Your task to perform on an android device: Toggle the flashlight Image 0: 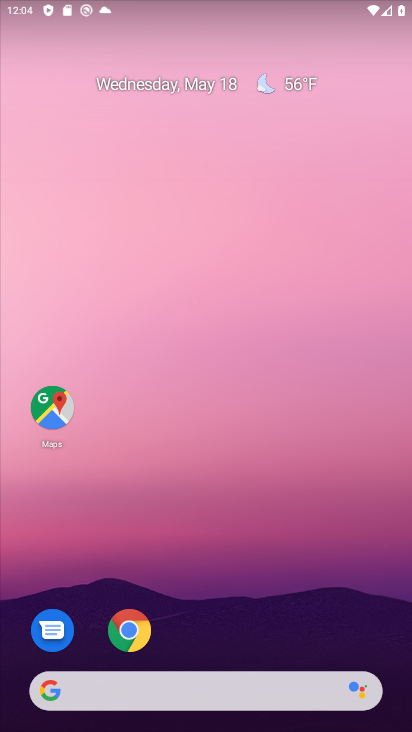
Step 0: drag from (216, 568) to (203, 382)
Your task to perform on an android device: Toggle the flashlight Image 1: 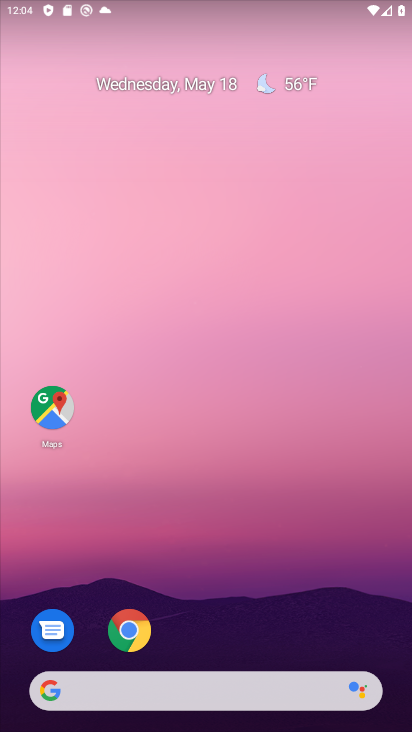
Step 1: drag from (233, 607) to (231, 10)
Your task to perform on an android device: Toggle the flashlight Image 2: 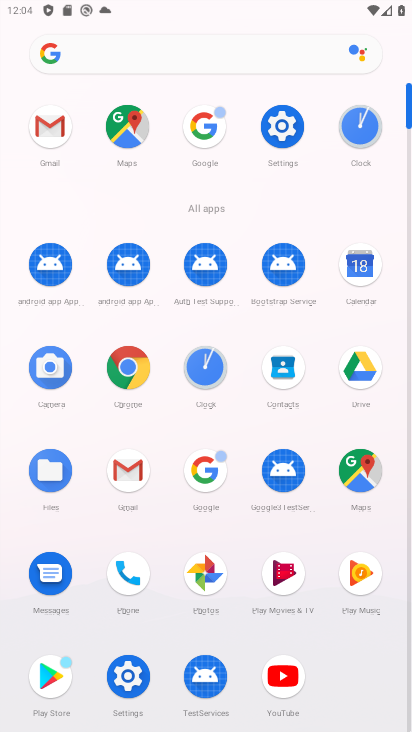
Step 2: click (285, 127)
Your task to perform on an android device: Toggle the flashlight Image 3: 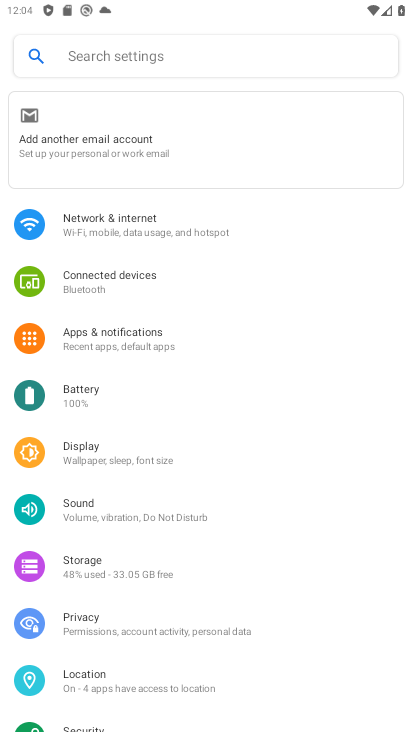
Step 3: drag from (220, 477) to (228, 68)
Your task to perform on an android device: Toggle the flashlight Image 4: 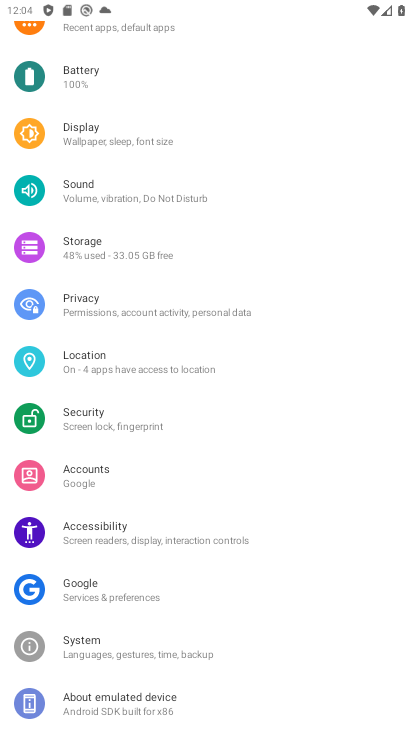
Step 4: drag from (189, 448) to (188, 48)
Your task to perform on an android device: Toggle the flashlight Image 5: 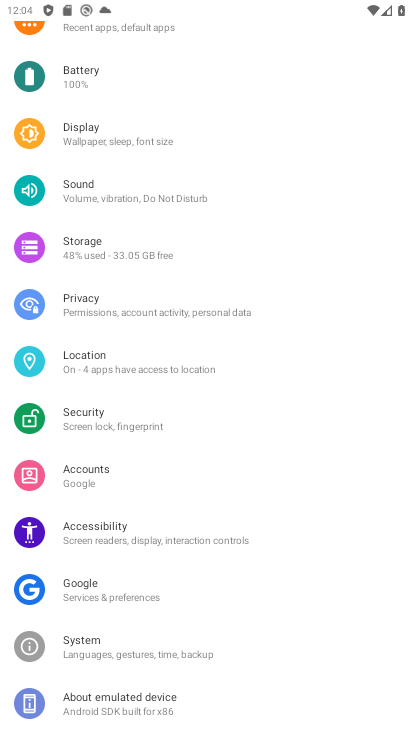
Step 5: drag from (201, 230) to (203, 592)
Your task to perform on an android device: Toggle the flashlight Image 6: 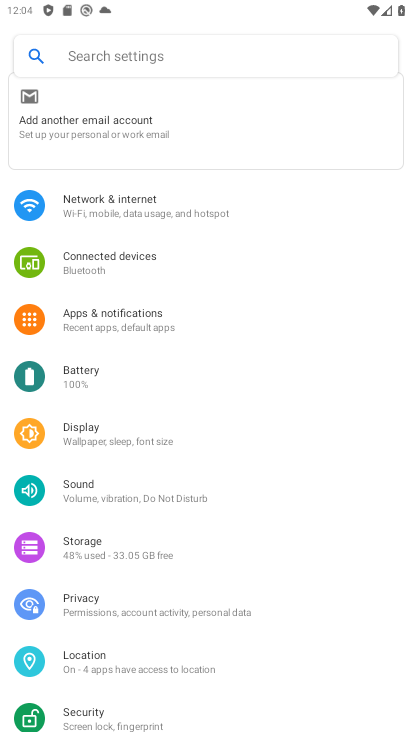
Step 6: drag from (121, 449) to (6, 470)
Your task to perform on an android device: Toggle the flashlight Image 7: 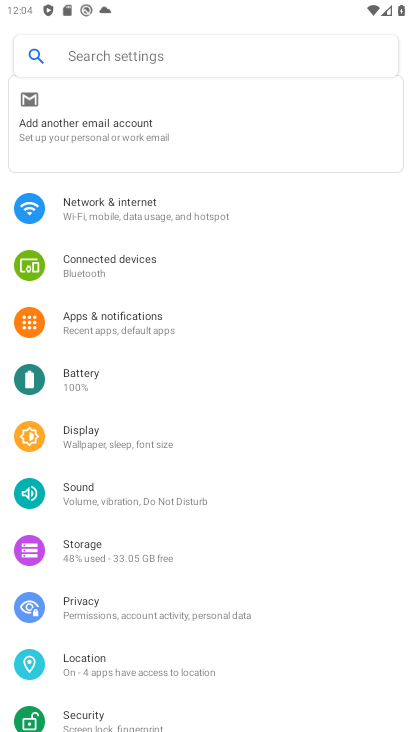
Step 7: click (120, 435)
Your task to perform on an android device: Toggle the flashlight Image 8: 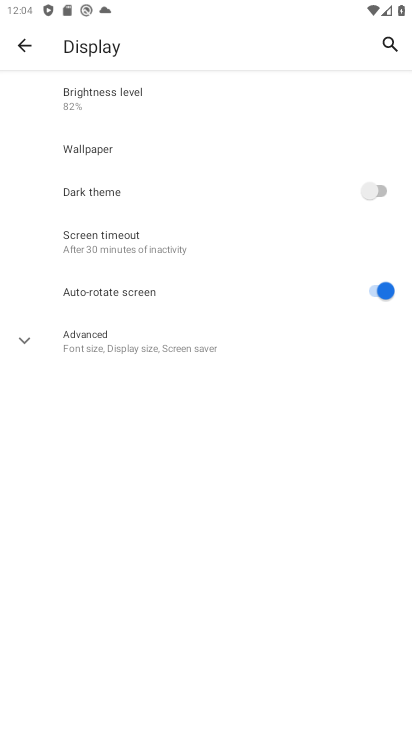
Step 8: click (54, 340)
Your task to perform on an android device: Toggle the flashlight Image 9: 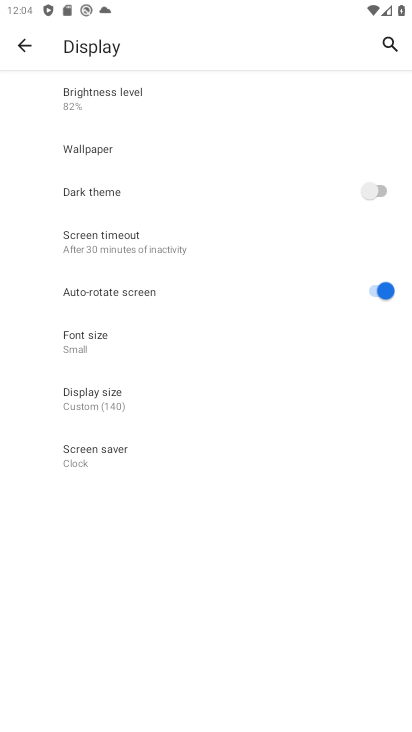
Step 9: task complete